Your task to perform on an android device: find snoozed emails in the gmail app Image 0: 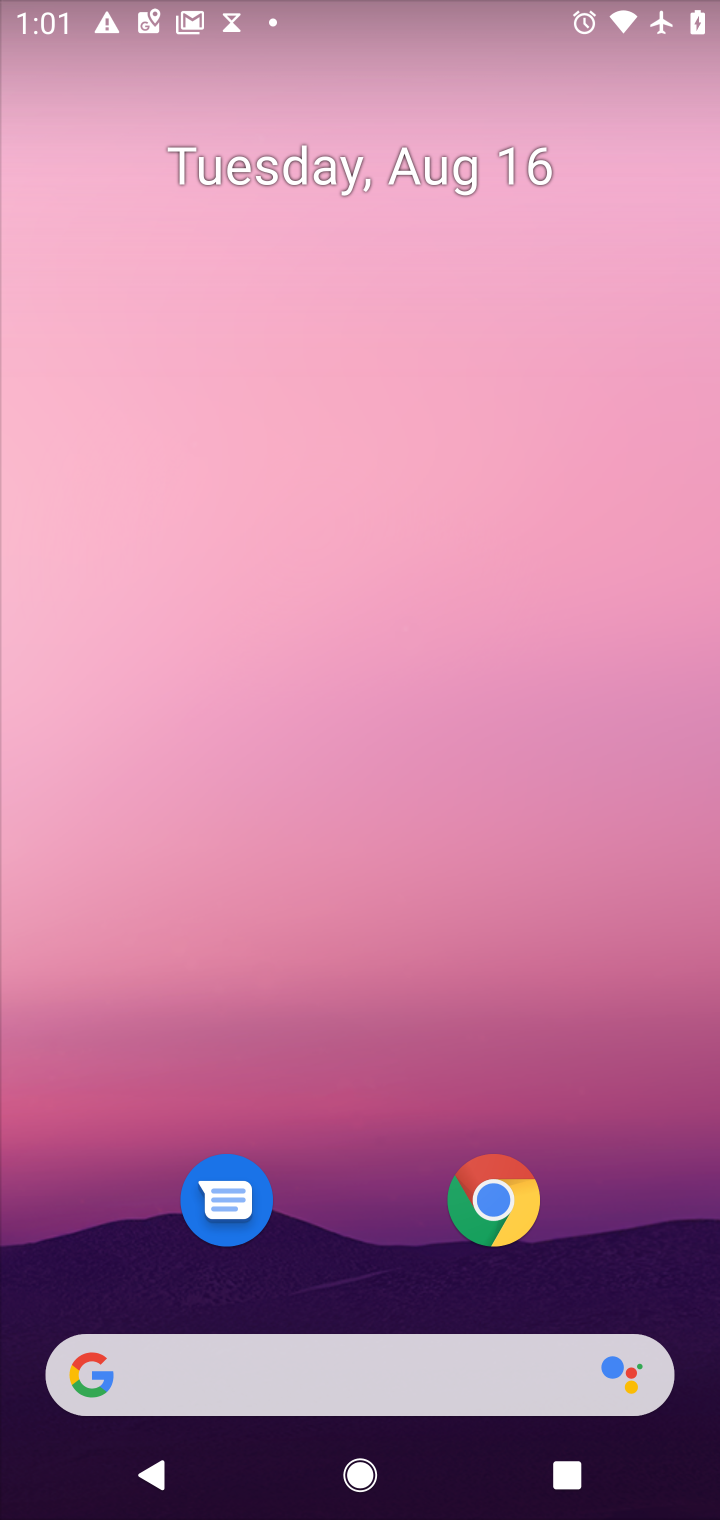
Step 0: drag from (360, 1125) to (348, 237)
Your task to perform on an android device: find snoozed emails in the gmail app Image 1: 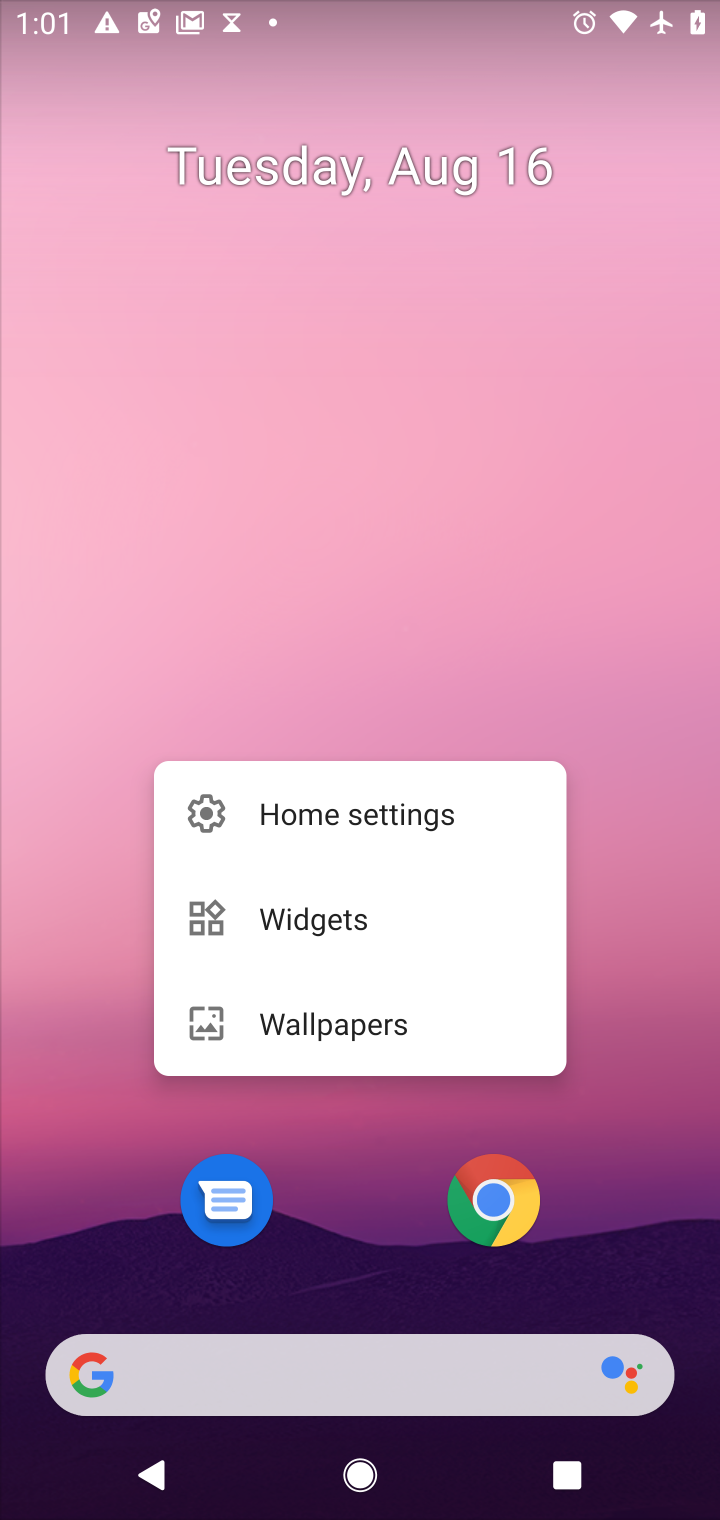
Step 1: click (322, 1136)
Your task to perform on an android device: find snoozed emails in the gmail app Image 2: 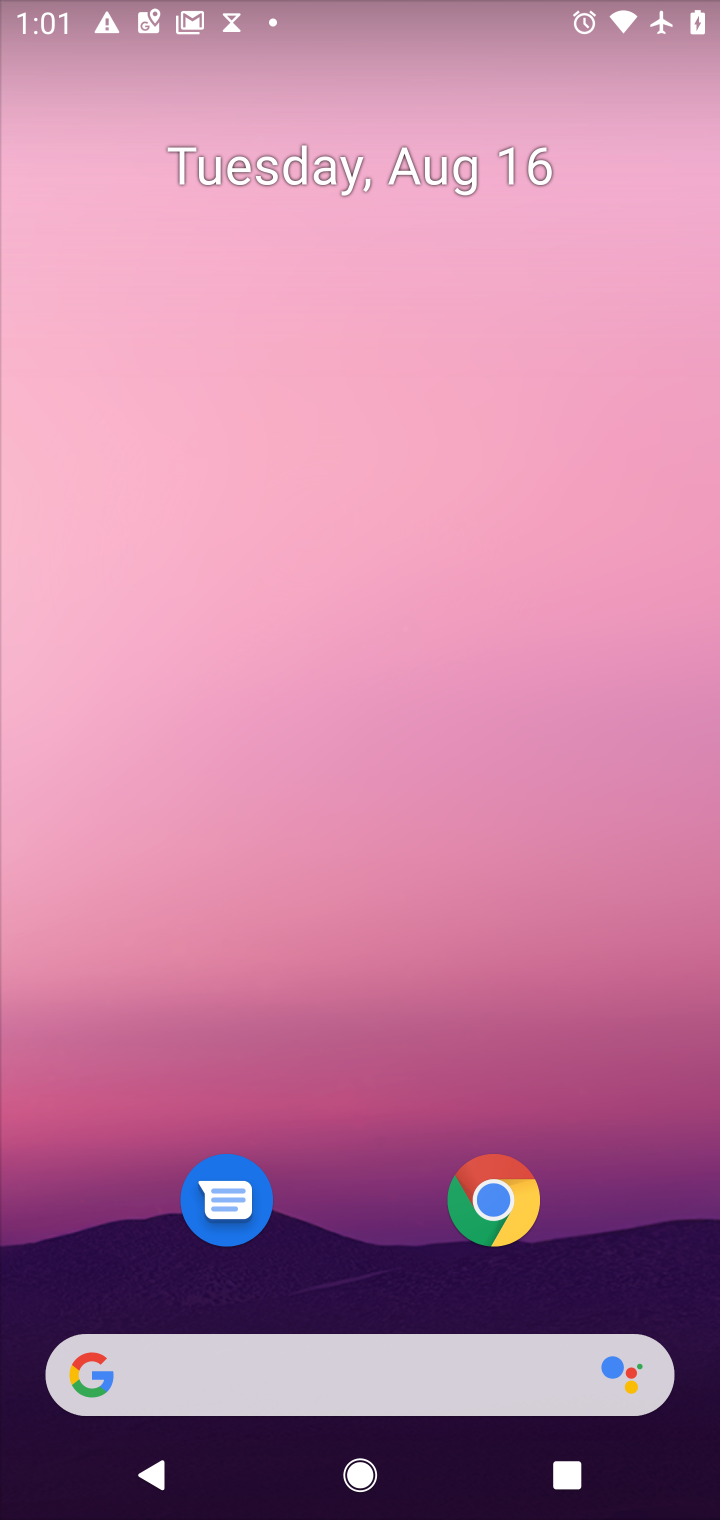
Step 2: drag from (348, 1249) to (351, 257)
Your task to perform on an android device: find snoozed emails in the gmail app Image 3: 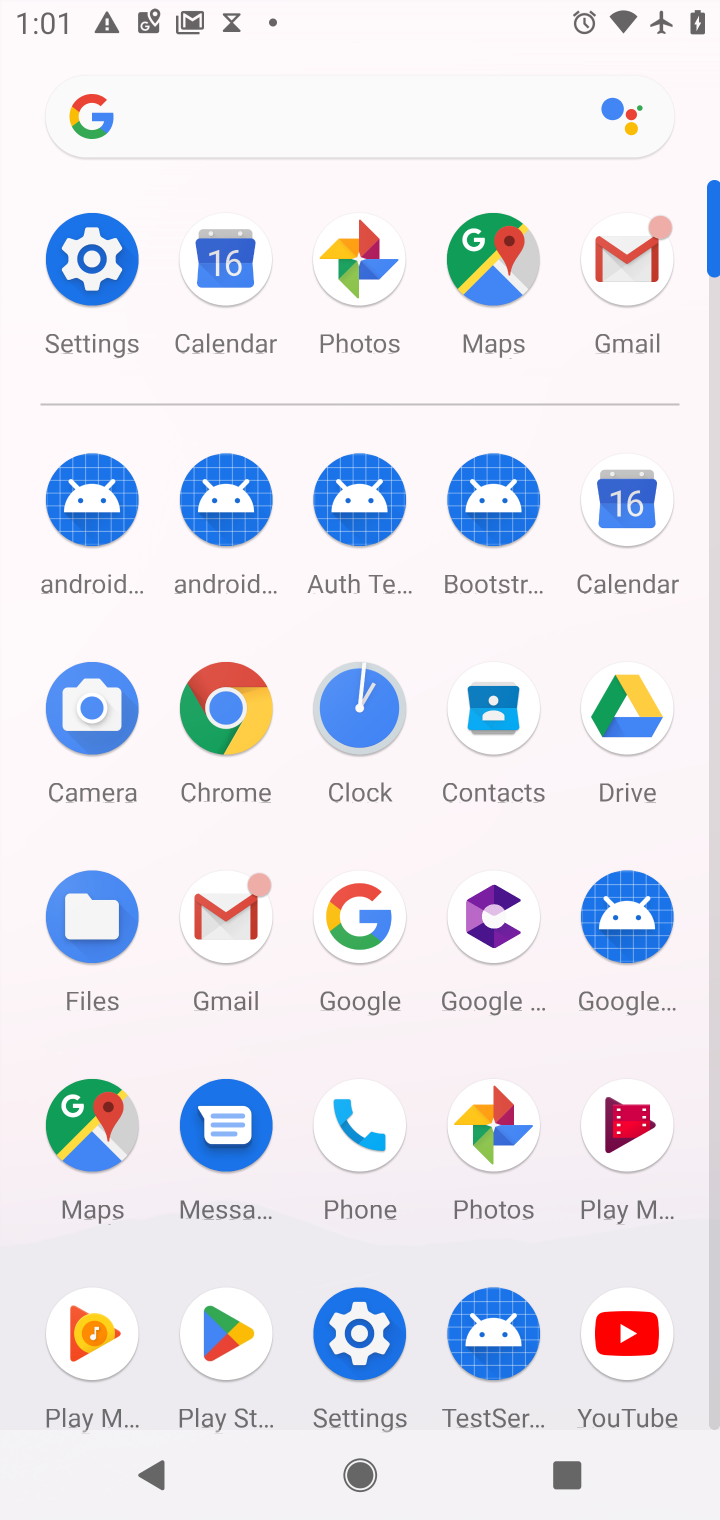
Step 3: click (620, 294)
Your task to perform on an android device: find snoozed emails in the gmail app Image 4: 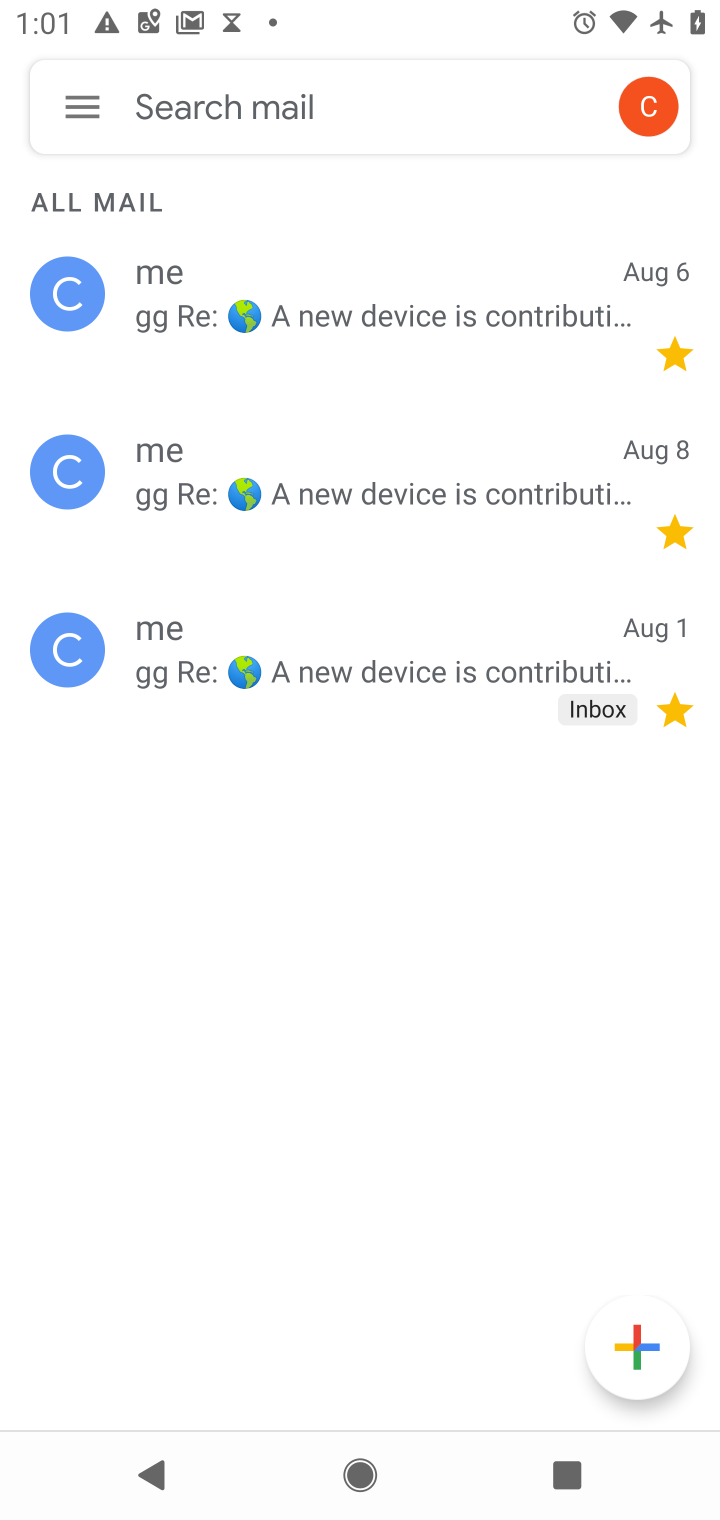
Step 4: click (60, 105)
Your task to perform on an android device: find snoozed emails in the gmail app Image 5: 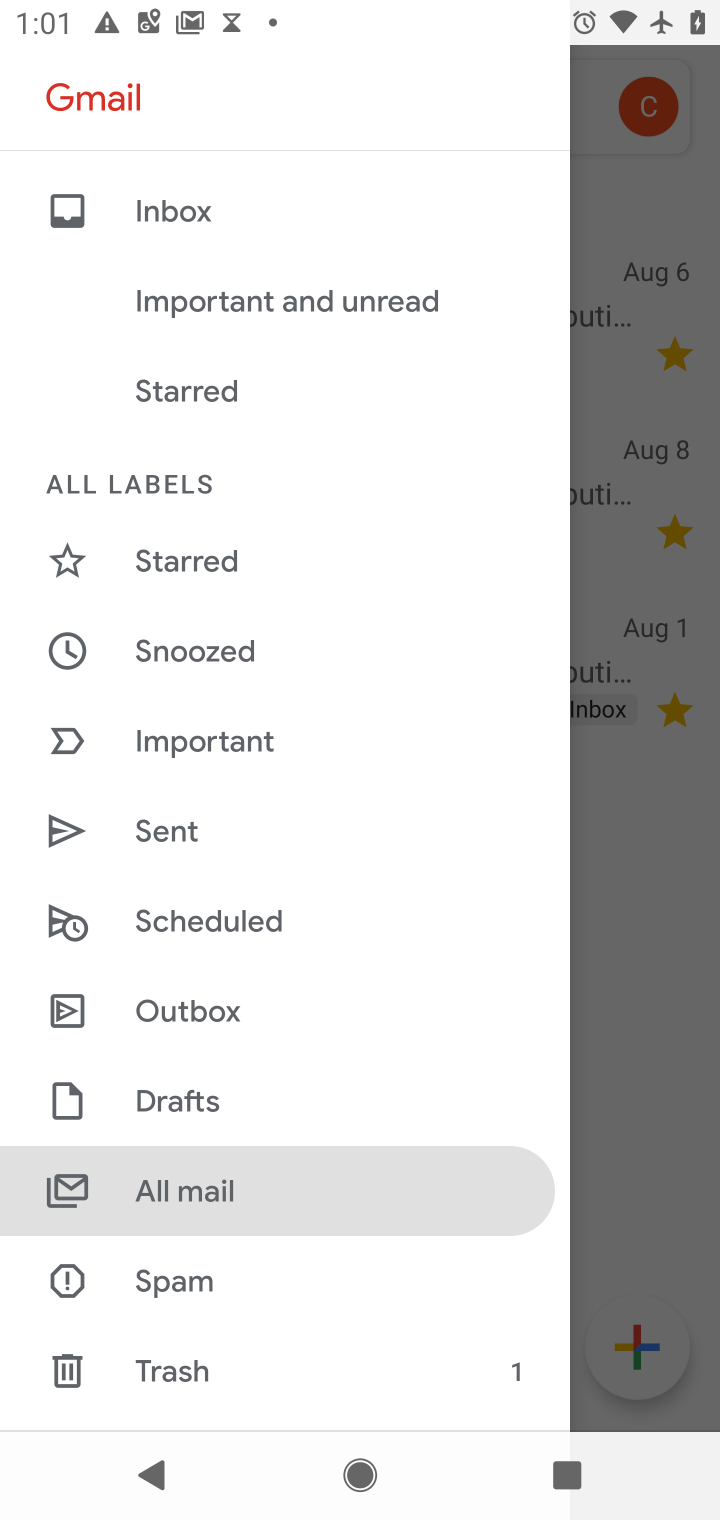
Step 5: click (293, 636)
Your task to perform on an android device: find snoozed emails in the gmail app Image 6: 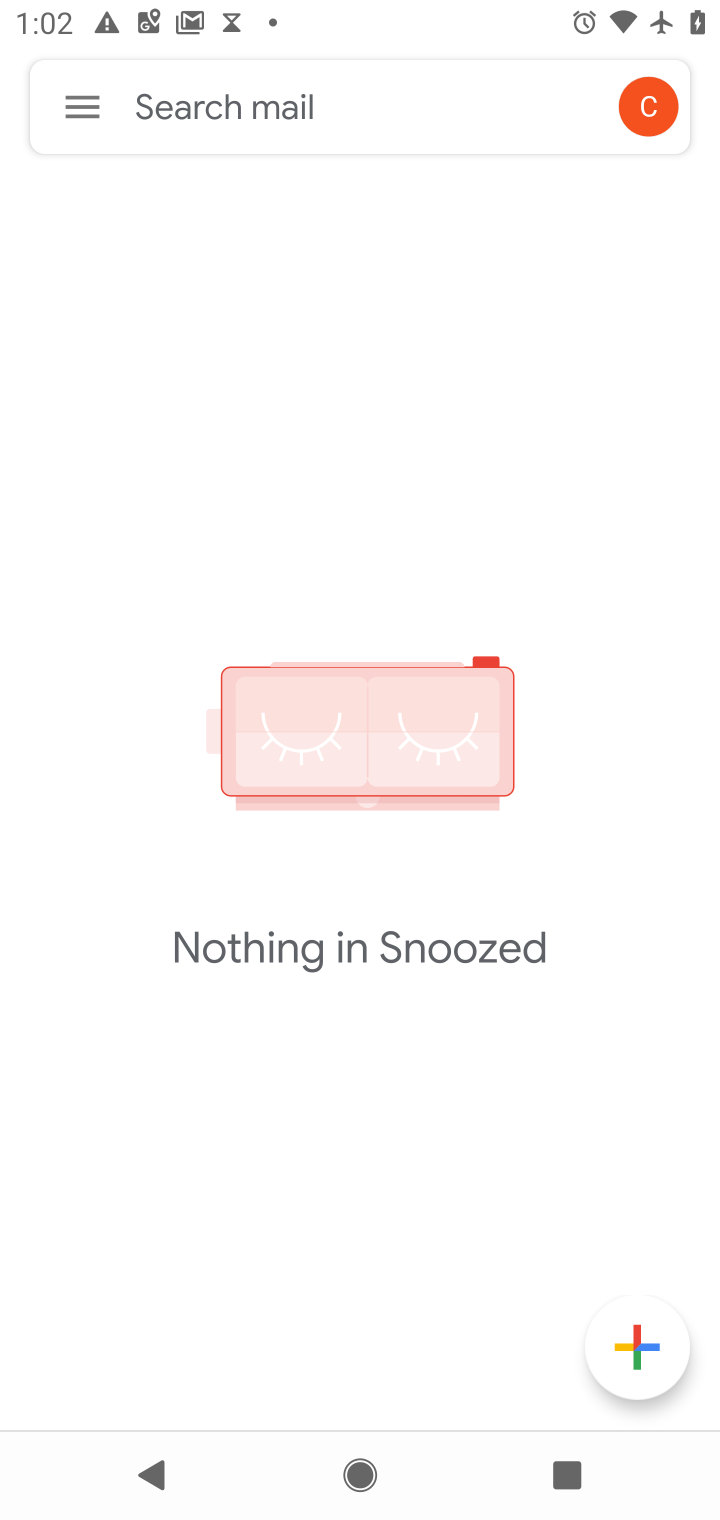
Step 6: task complete